Your task to perform on an android device: check google app version Image 0: 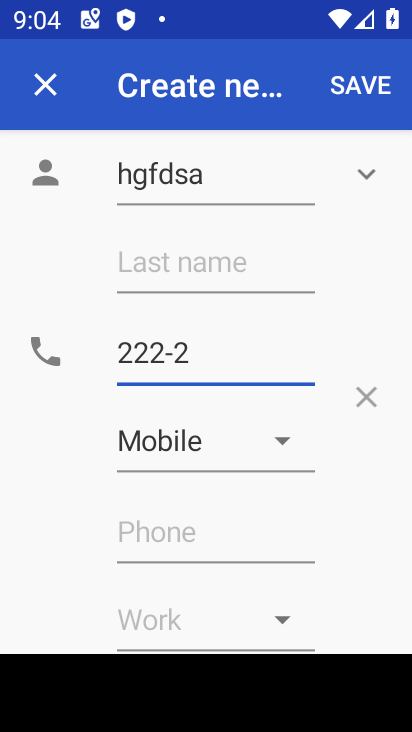
Step 0: press home button
Your task to perform on an android device: check google app version Image 1: 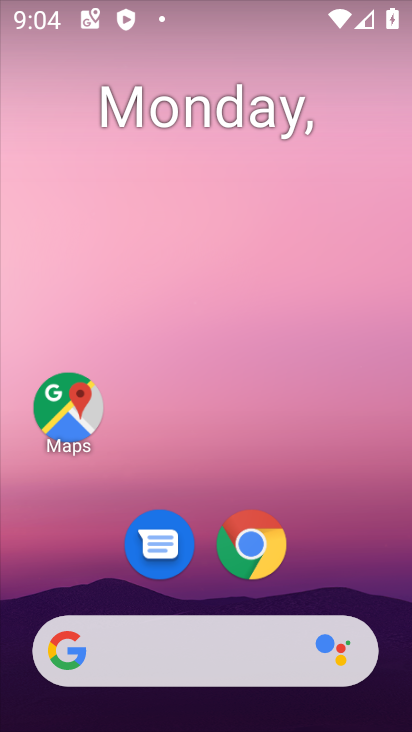
Step 1: click (57, 660)
Your task to perform on an android device: check google app version Image 2: 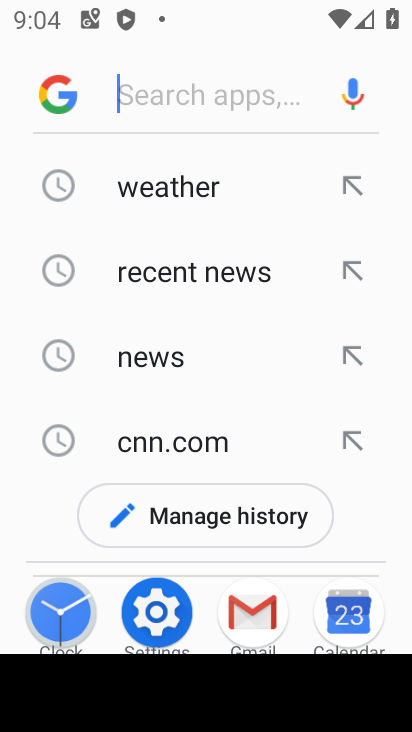
Step 2: click (58, 89)
Your task to perform on an android device: check google app version Image 3: 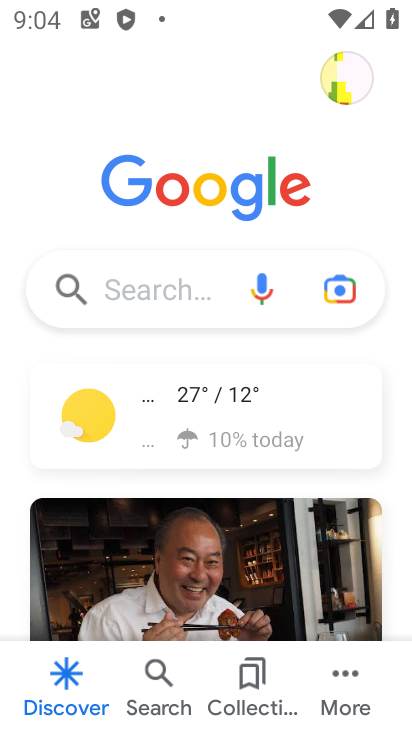
Step 3: click (345, 666)
Your task to perform on an android device: check google app version Image 4: 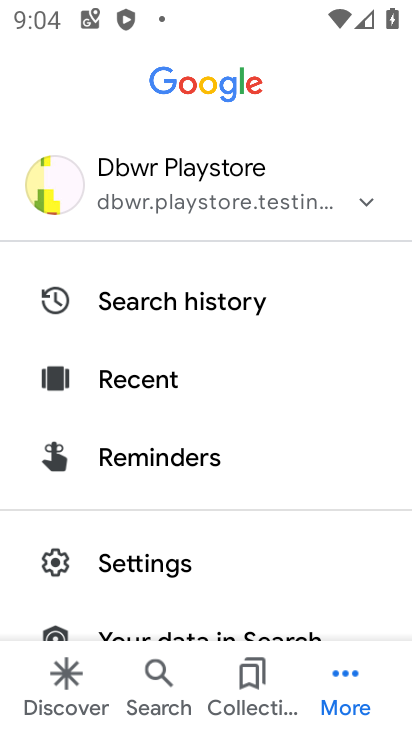
Step 4: drag from (266, 492) to (253, 254)
Your task to perform on an android device: check google app version Image 5: 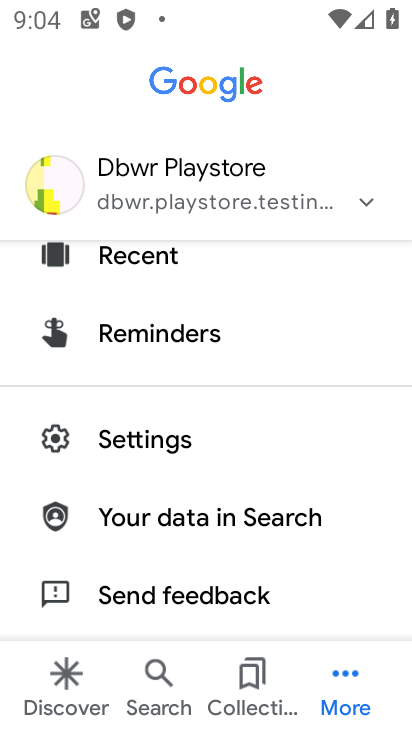
Step 5: click (130, 435)
Your task to perform on an android device: check google app version Image 6: 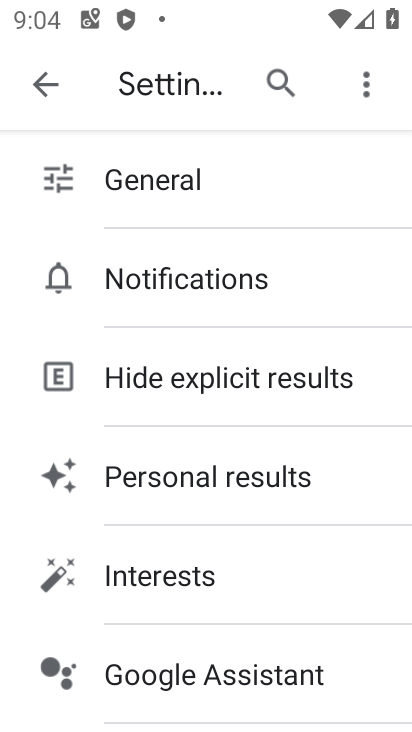
Step 6: drag from (246, 528) to (190, 192)
Your task to perform on an android device: check google app version Image 7: 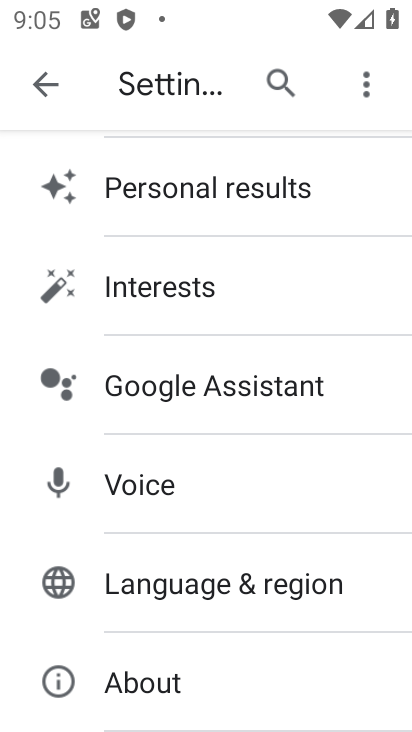
Step 7: drag from (267, 459) to (244, 3)
Your task to perform on an android device: check google app version Image 8: 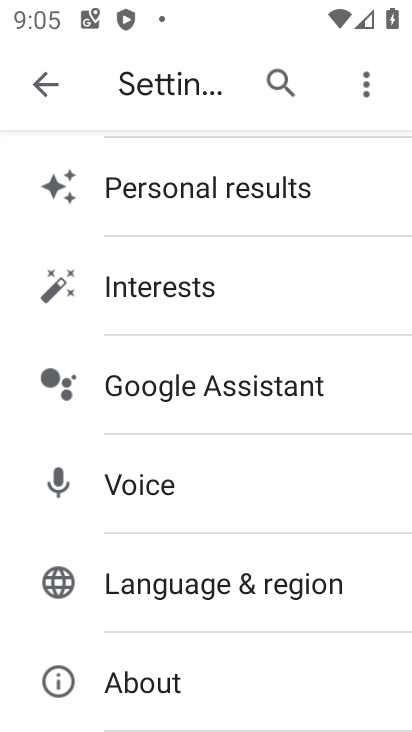
Step 8: click (139, 678)
Your task to perform on an android device: check google app version Image 9: 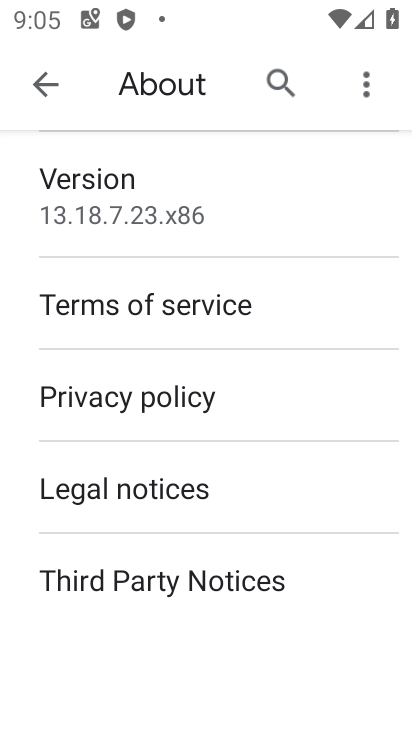
Step 9: task complete